Your task to perform on an android device: toggle translation in the chrome app Image 0: 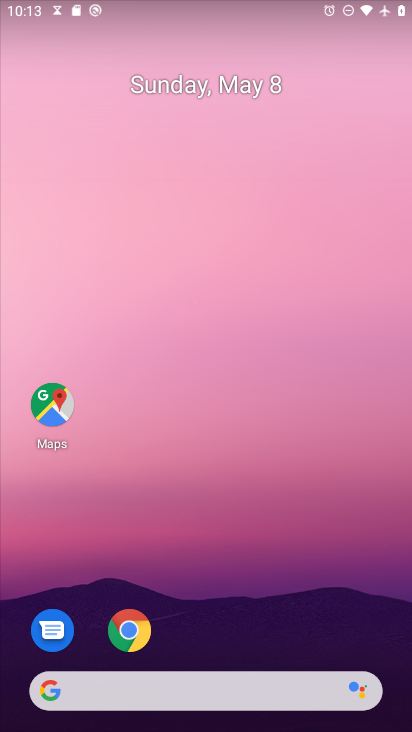
Step 0: click (120, 621)
Your task to perform on an android device: toggle translation in the chrome app Image 1: 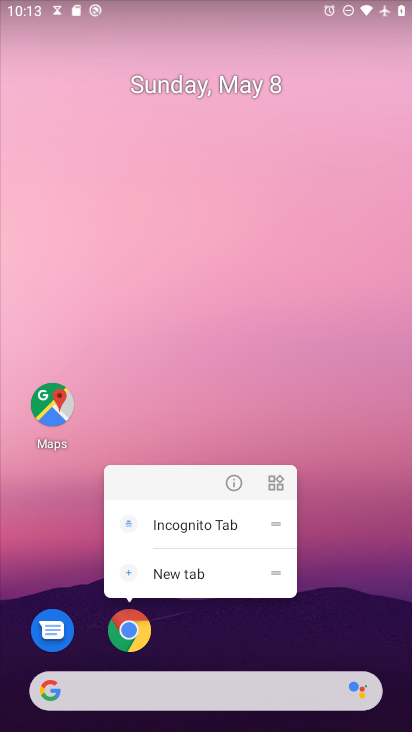
Step 1: click (118, 628)
Your task to perform on an android device: toggle translation in the chrome app Image 2: 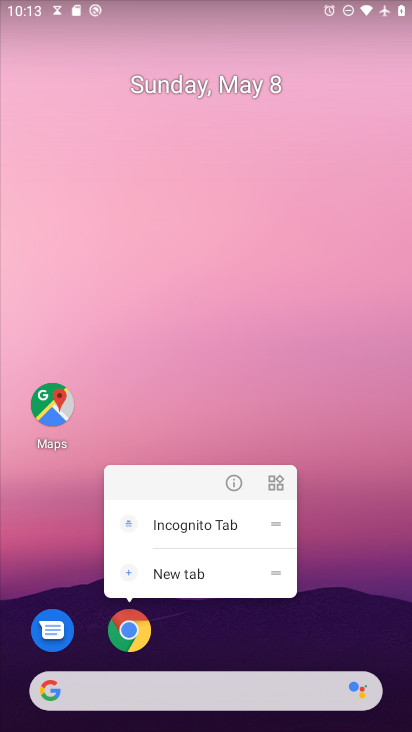
Step 2: click (131, 638)
Your task to perform on an android device: toggle translation in the chrome app Image 3: 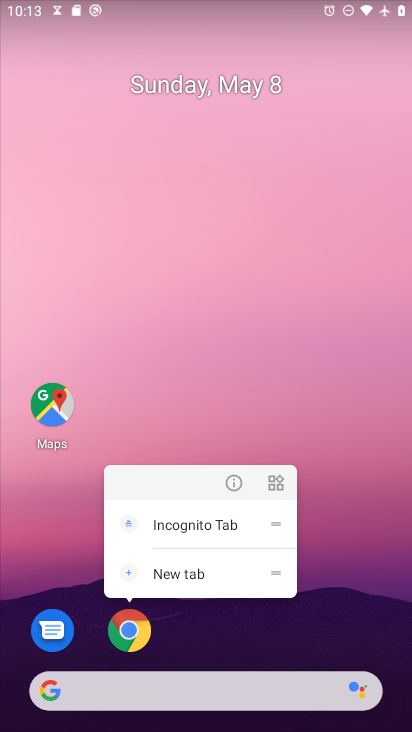
Step 3: click (129, 635)
Your task to perform on an android device: toggle translation in the chrome app Image 4: 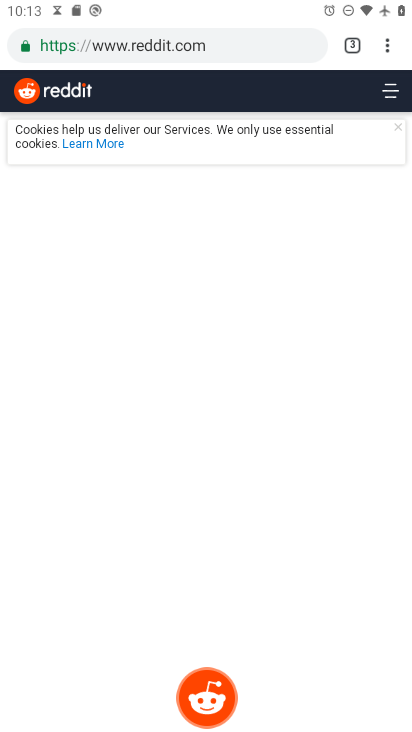
Step 4: drag from (386, 43) to (227, 552)
Your task to perform on an android device: toggle translation in the chrome app Image 5: 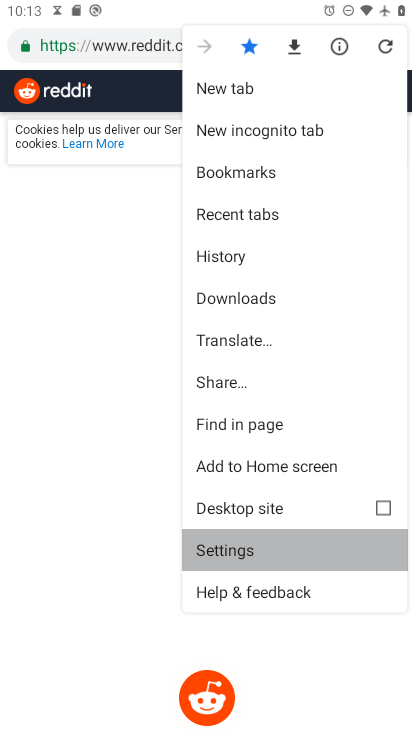
Step 5: click (227, 552)
Your task to perform on an android device: toggle translation in the chrome app Image 6: 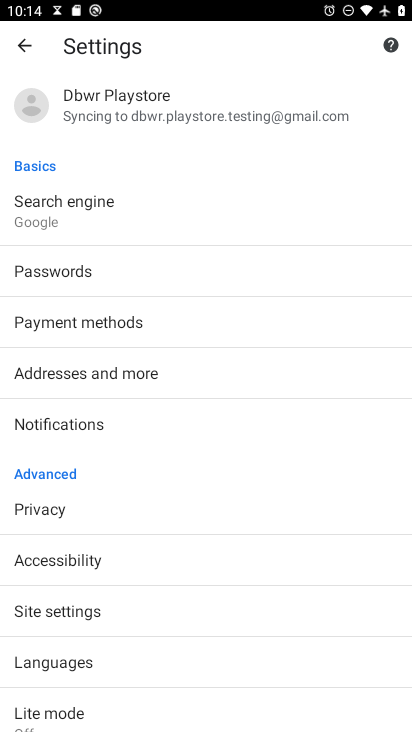
Step 6: click (66, 669)
Your task to perform on an android device: toggle translation in the chrome app Image 7: 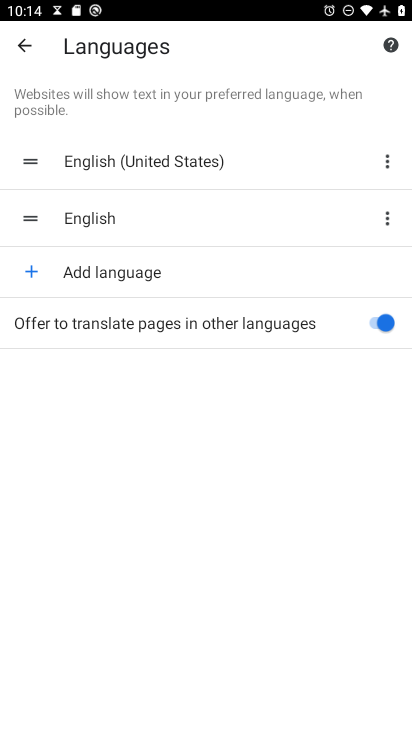
Step 7: click (374, 322)
Your task to perform on an android device: toggle translation in the chrome app Image 8: 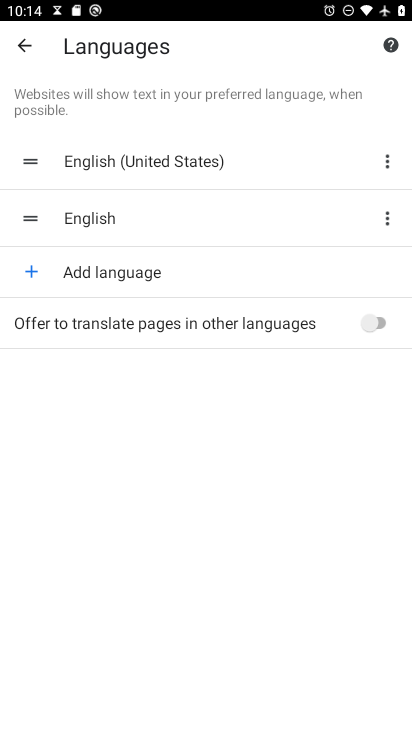
Step 8: task complete